Your task to perform on an android device: Open accessibility settings Image 0: 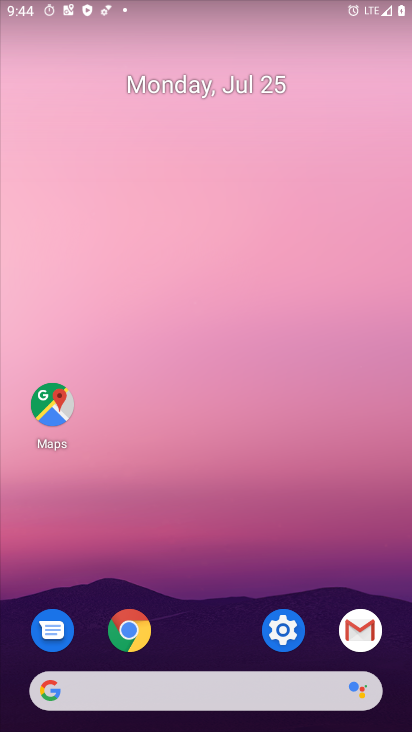
Step 0: click (293, 640)
Your task to perform on an android device: Open accessibility settings Image 1: 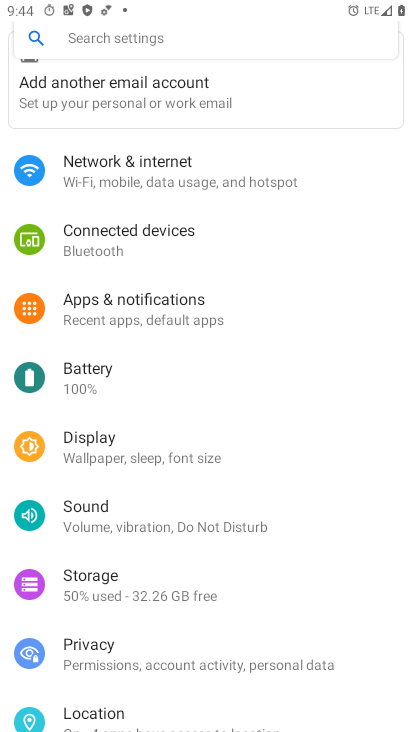
Step 1: click (136, 45)
Your task to perform on an android device: Open accessibility settings Image 2: 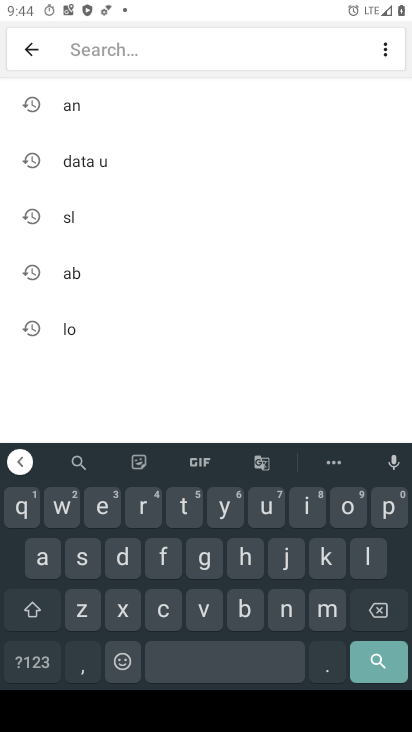
Step 2: click (36, 557)
Your task to perform on an android device: Open accessibility settings Image 3: 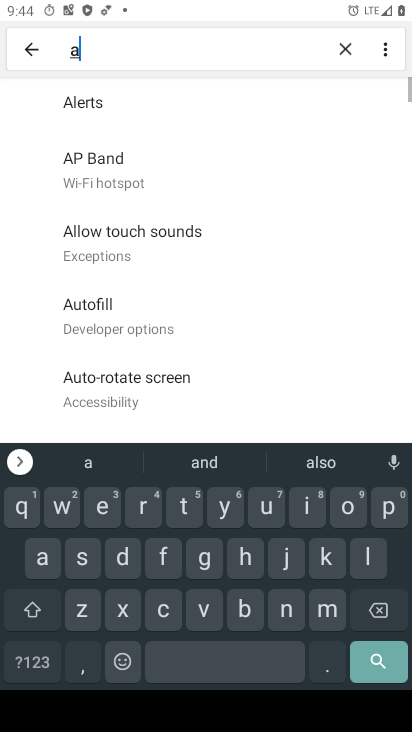
Step 3: click (157, 614)
Your task to perform on an android device: Open accessibility settings Image 4: 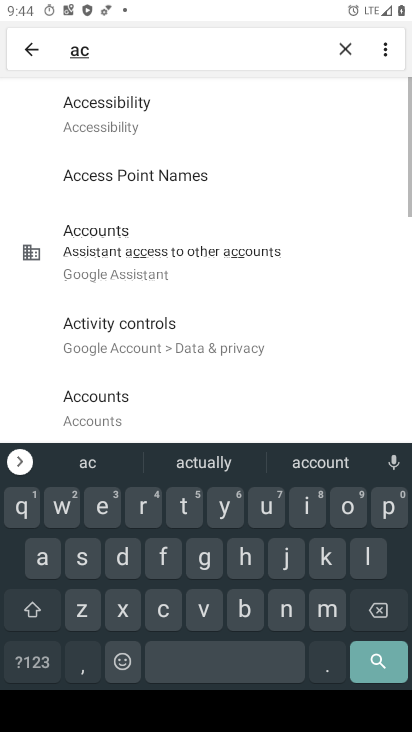
Step 4: click (115, 99)
Your task to perform on an android device: Open accessibility settings Image 5: 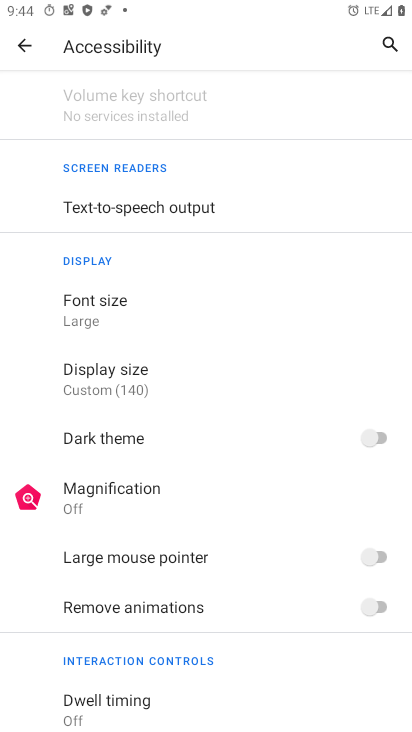
Step 5: task complete